Your task to perform on an android device: open a bookmark in the chrome app Image 0: 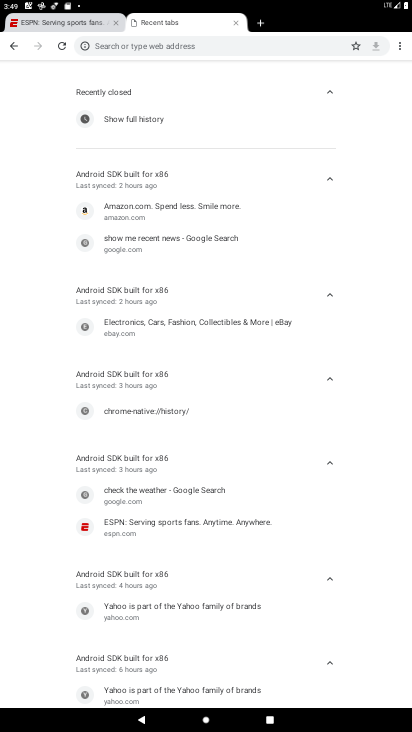
Step 0: press home button
Your task to perform on an android device: open a bookmark in the chrome app Image 1: 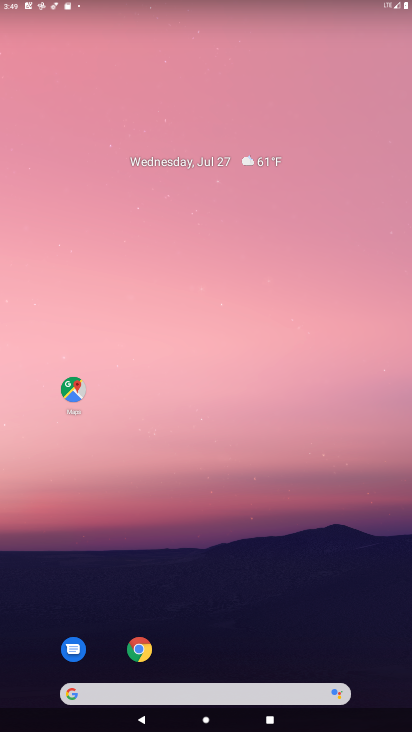
Step 1: click (137, 653)
Your task to perform on an android device: open a bookmark in the chrome app Image 2: 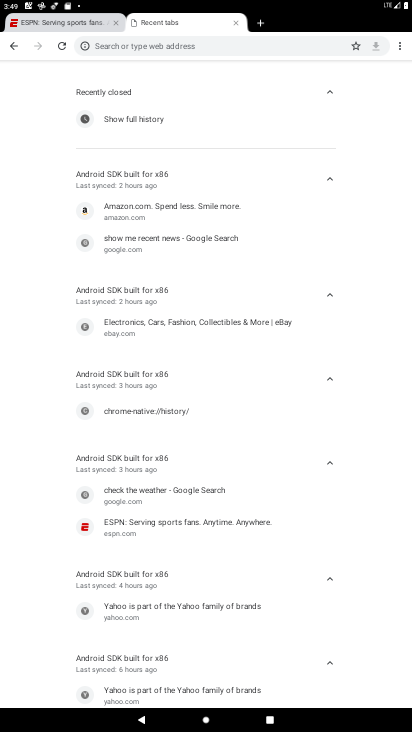
Step 2: click (399, 50)
Your task to perform on an android device: open a bookmark in the chrome app Image 3: 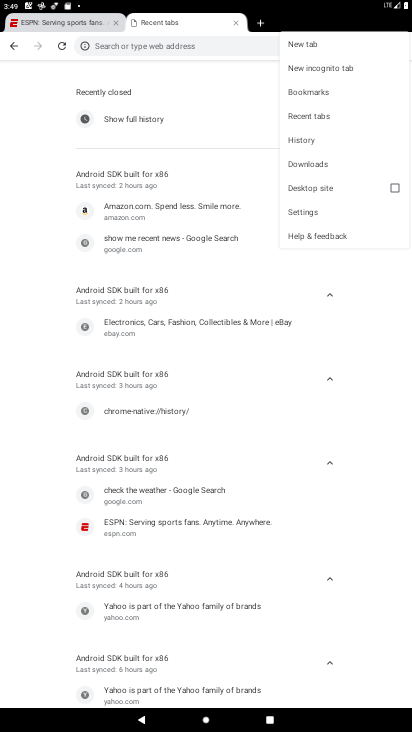
Step 3: click (329, 95)
Your task to perform on an android device: open a bookmark in the chrome app Image 4: 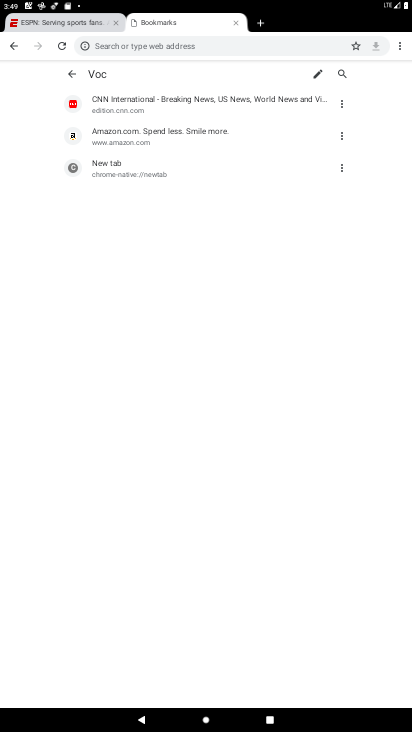
Step 4: click (133, 139)
Your task to perform on an android device: open a bookmark in the chrome app Image 5: 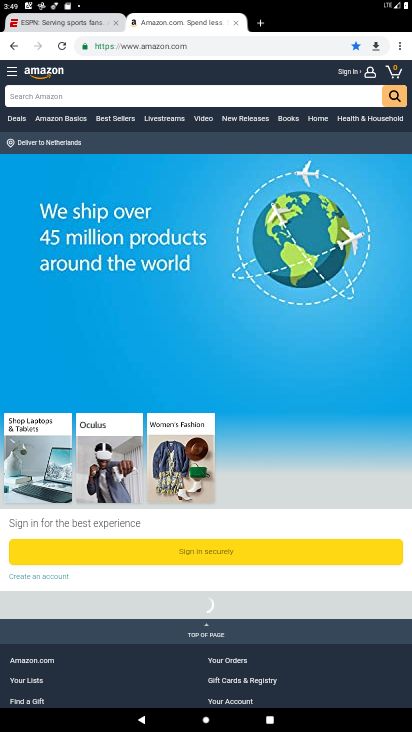
Step 5: task complete